Your task to perform on an android device: Open calendar and show me the third week of next month Image 0: 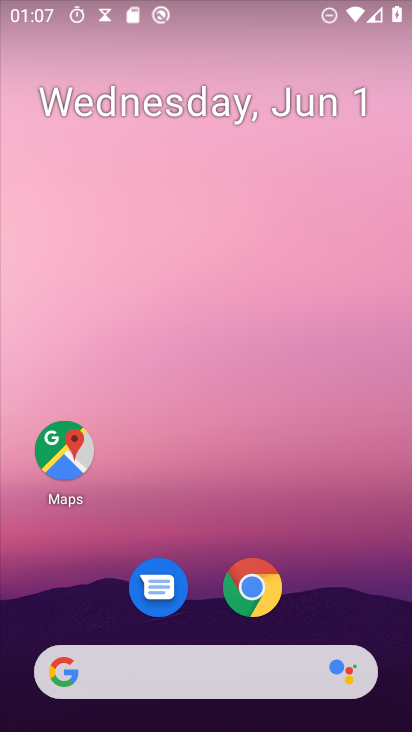
Step 0: drag from (204, 611) to (347, 47)
Your task to perform on an android device: Open calendar and show me the third week of next month Image 1: 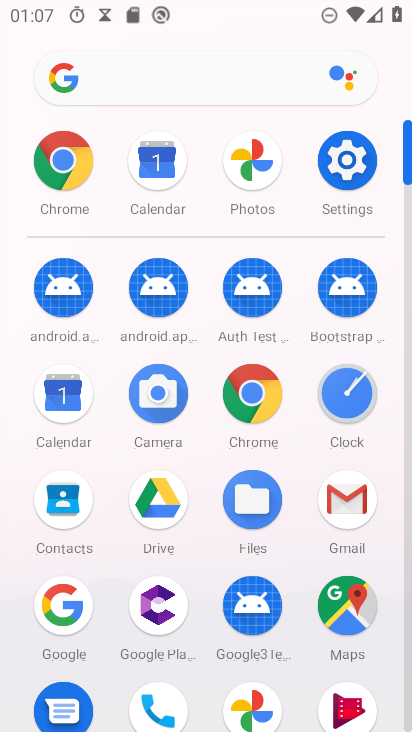
Step 1: click (65, 392)
Your task to perform on an android device: Open calendar and show me the third week of next month Image 2: 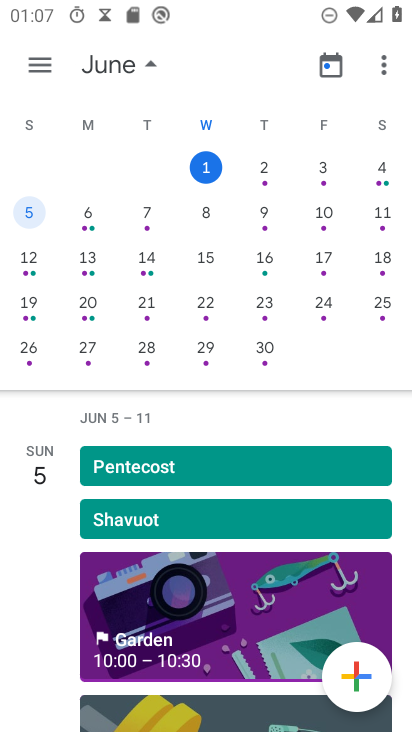
Step 2: click (26, 271)
Your task to perform on an android device: Open calendar and show me the third week of next month Image 3: 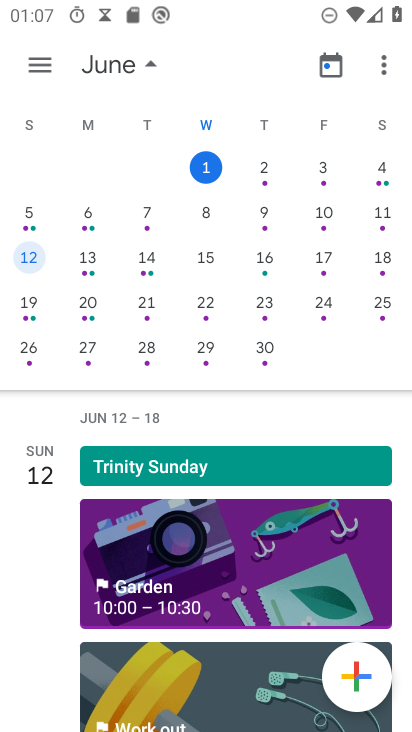
Step 3: task complete